Your task to perform on an android device: Toggle the flashlight Image 0: 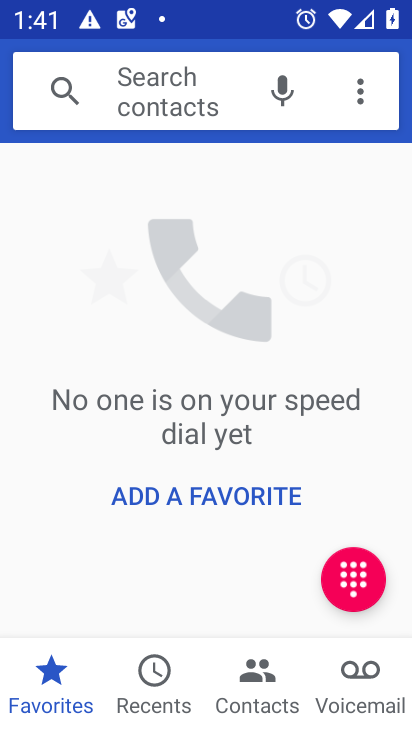
Step 0: press home button
Your task to perform on an android device: Toggle the flashlight Image 1: 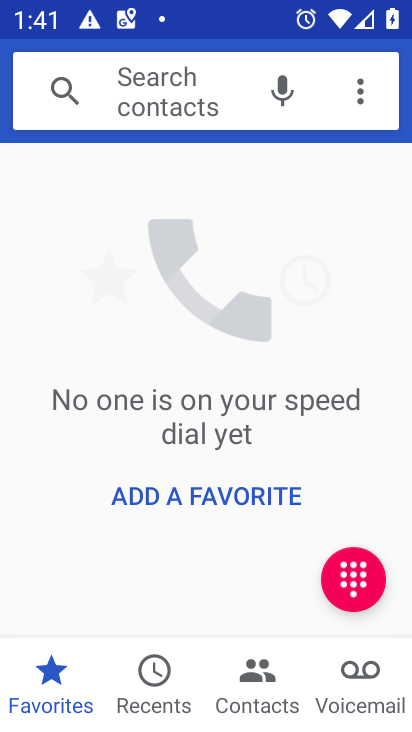
Step 1: press home button
Your task to perform on an android device: Toggle the flashlight Image 2: 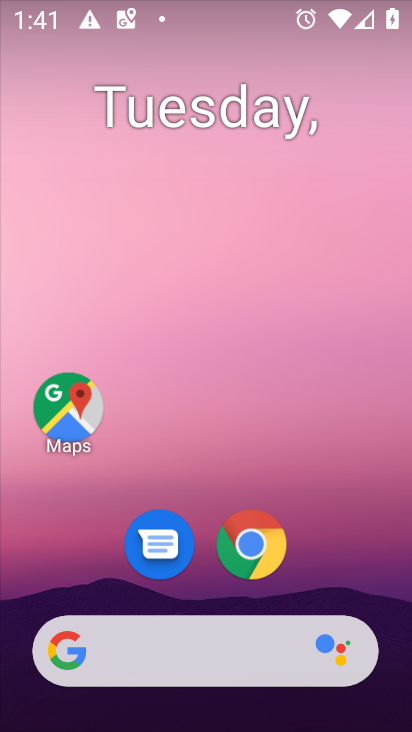
Step 2: drag from (312, 475) to (220, 79)
Your task to perform on an android device: Toggle the flashlight Image 3: 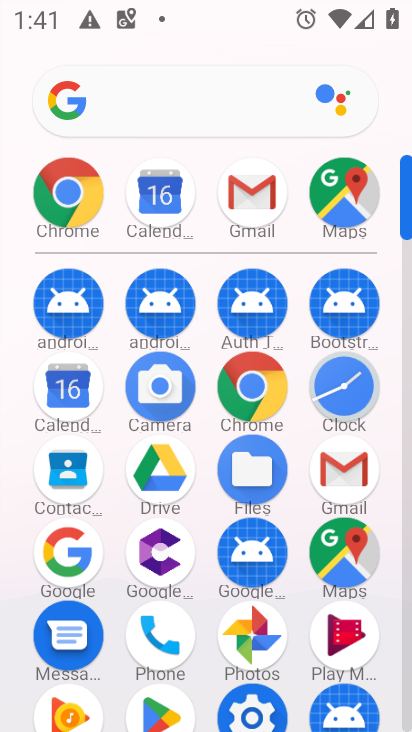
Step 3: click (253, 714)
Your task to perform on an android device: Toggle the flashlight Image 4: 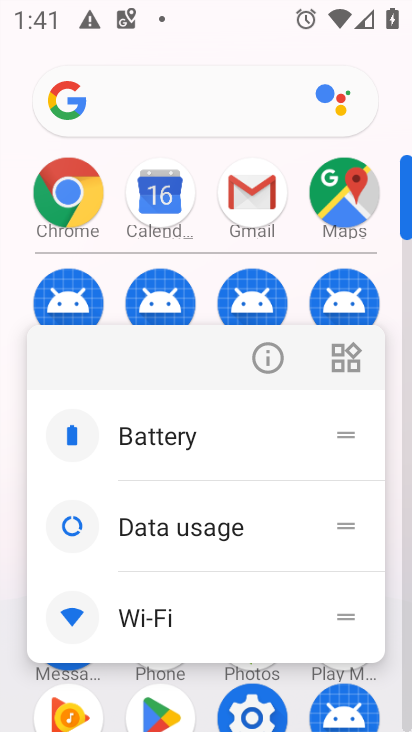
Step 4: click (245, 714)
Your task to perform on an android device: Toggle the flashlight Image 5: 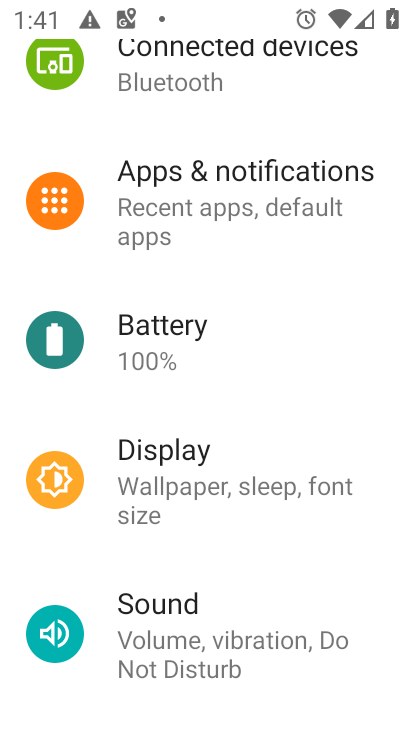
Step 5: click (202, 467)
Your task to perform on an android device: Toggle the flashlight Image 6: 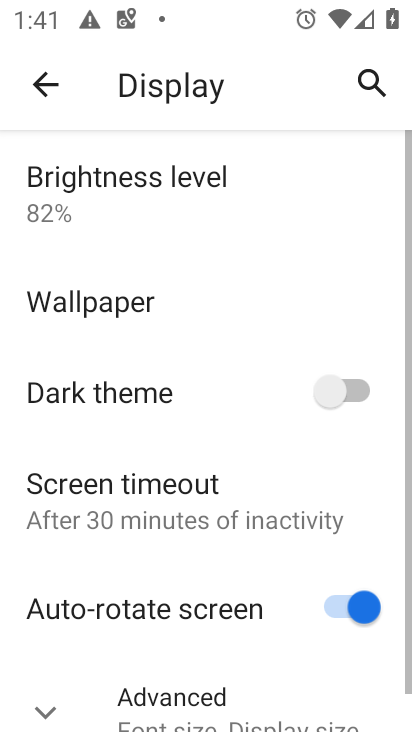
Step 6: task complete